Your task to perform on an android device: Check the news Image 0: 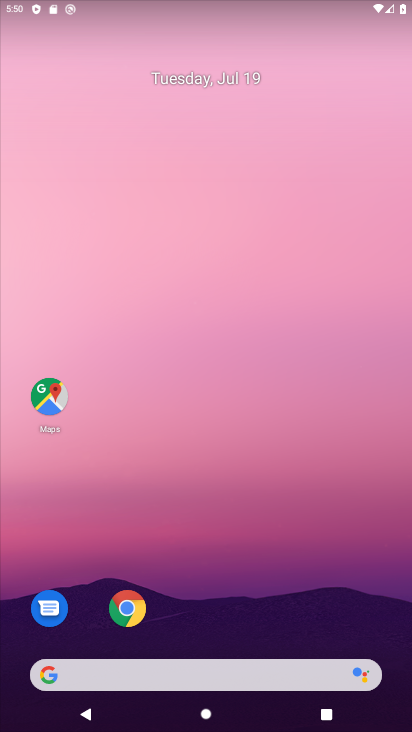
Step 0: drag from (27, 464) to (408, 401)
Your task to perform on an android device: Check the news Image 1: 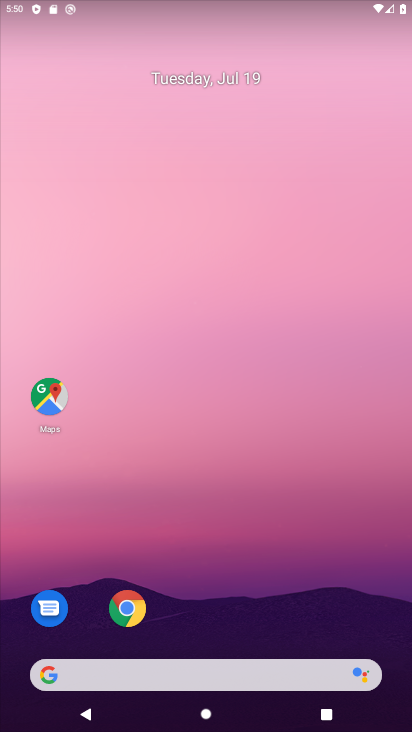
Step 1: task complete